Your task to perform on an android device: Go to battery settings Image 0: 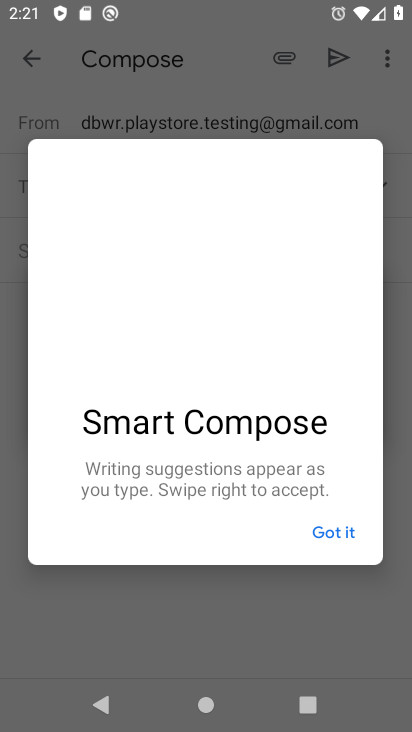
Step 0: press home button
Your task to perform on an android device: Go to battery settings Image 1: 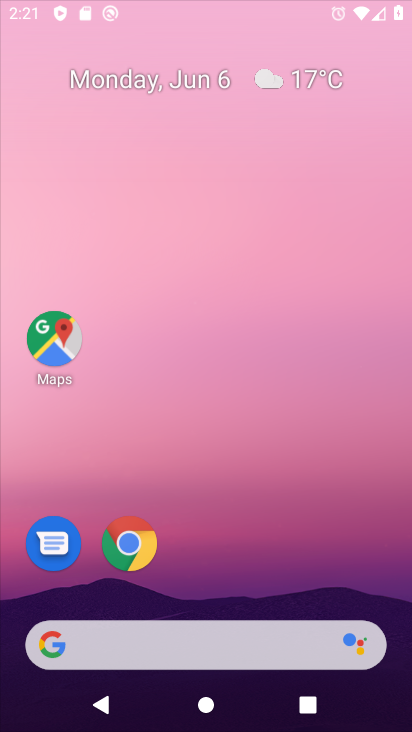
Step 1: press home button
Your task to perform on an android device: Go to battery settings Image 2: 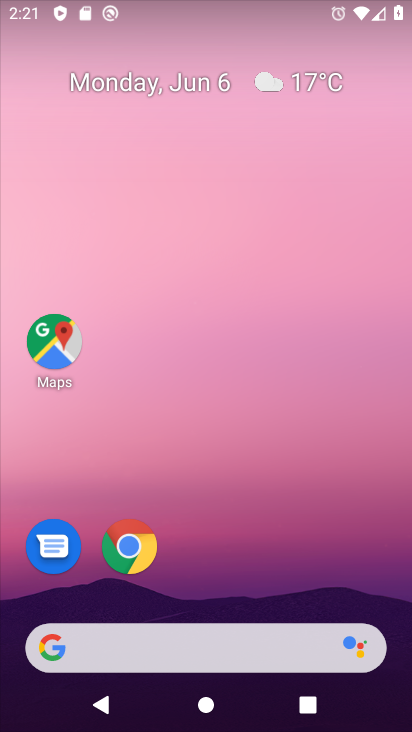
Step 2: click (194, 265)
Your task to perform on an android device: Go to battery settings Image 3: 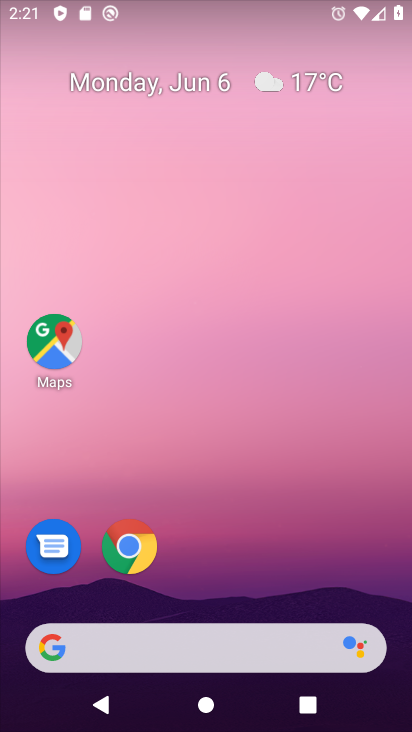
Step 3: drag from (228, 623) to (246, 266)
Your task to perform on an android device: Go to battery settings Image 4: 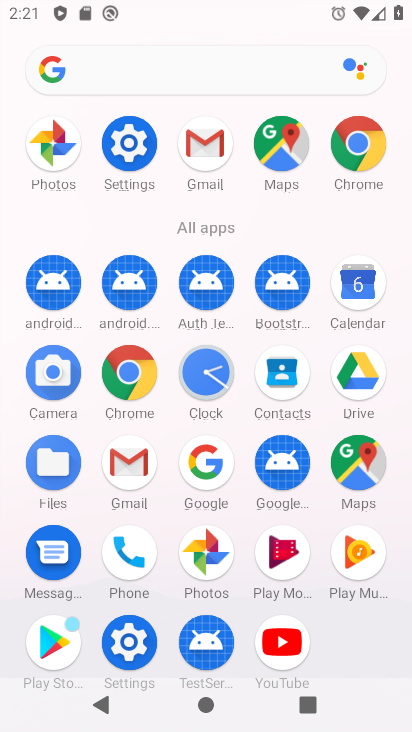
Step 4: click (116, 147)
Your task to perform on an android device: Go to battery settings Image 5: 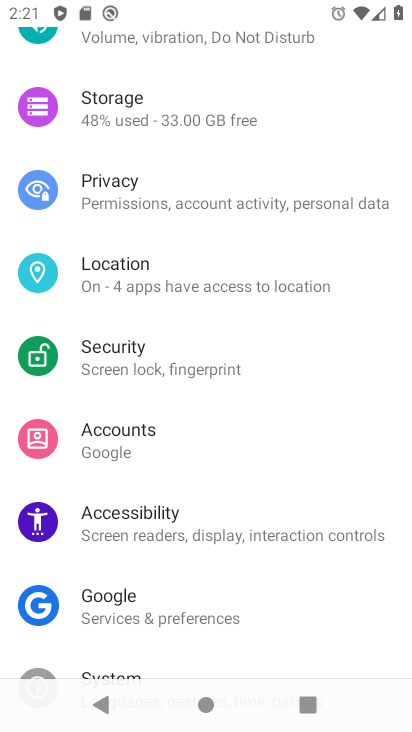
Step 5: drag from (194, 172) to (158, 465)
Your task to perform on an android device: Go to battery settings Image 6: 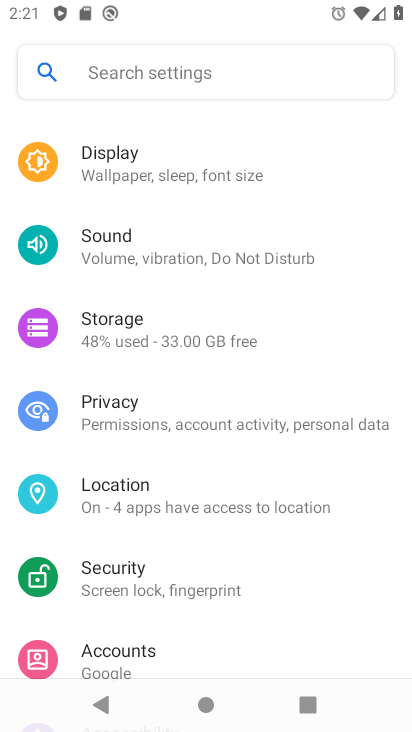
Step 6: drag from (152, 328) to (152, 543)
Your task to perform on an android device: Go to battery settings Image 7: 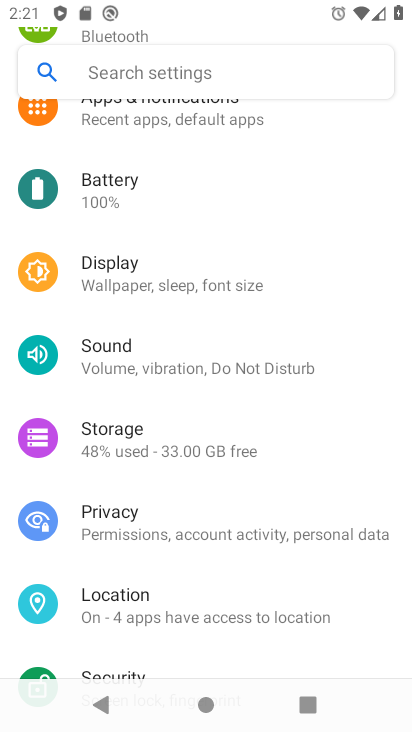
Step 7: click (135, 193)
Your task to perform on an android device: Go to battery settings Image 8: 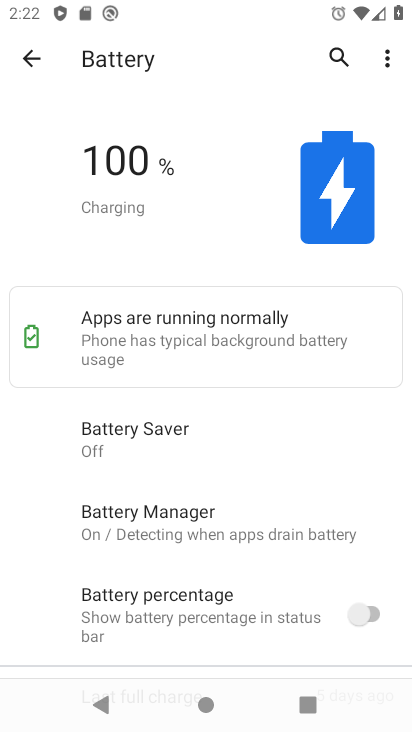
Step 8: task complete